Your task to perform on an android device: Open location settings Image 0: 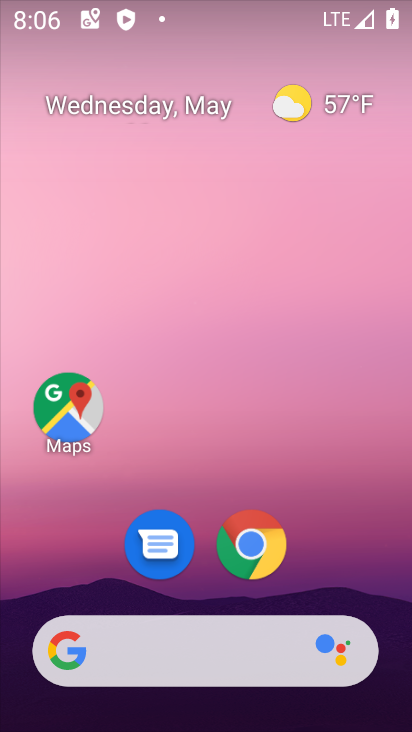
Step 0: drag from (329, 522) to (245, 0)
Your task to perform on an android device: Open location settings Image 1: 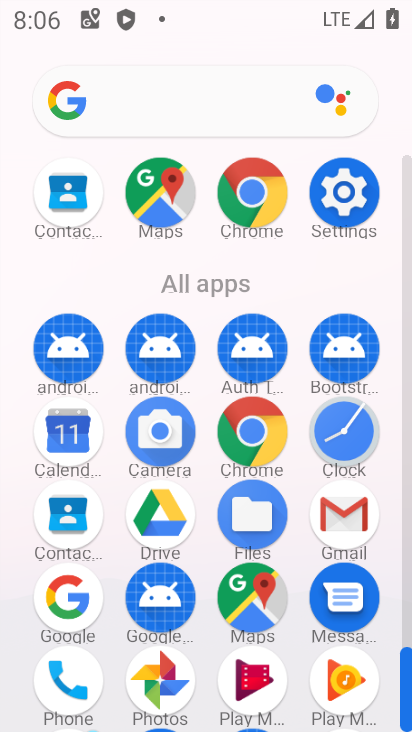
Step 1: drag from (9, 516) to (9, 172)
Your task to perform on an android device: Open location settings Image 2: 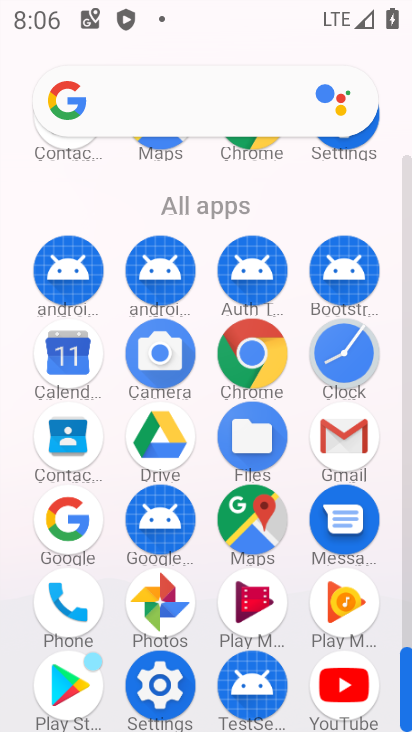
Step 2: click (161, 685)
Your task to perform on an android device: Open location settings Image 3: 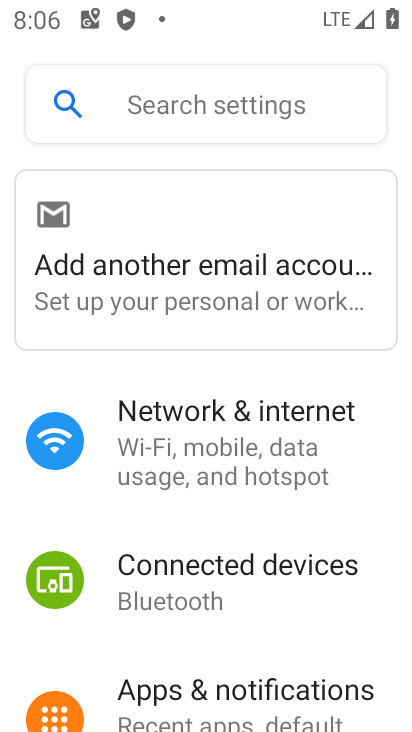
Step 3: drag from (298, 605) to (319, 102)
Your task to perform on an android device: Open location settings Image 4: 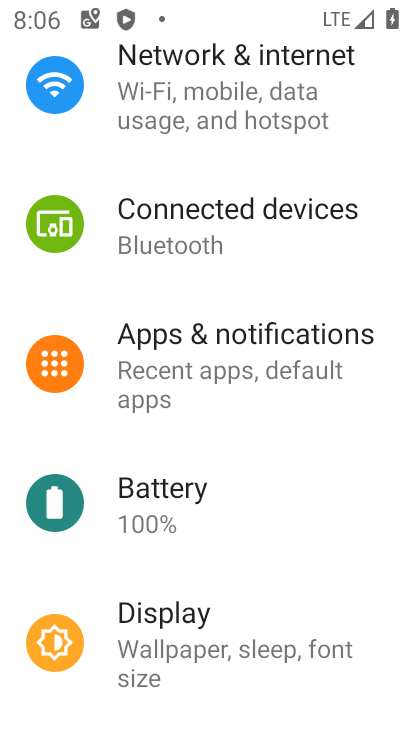
Step 4: drag from (267, 566) to (275, 94)
Your task to perform on an android device: Open location settings Image 5: 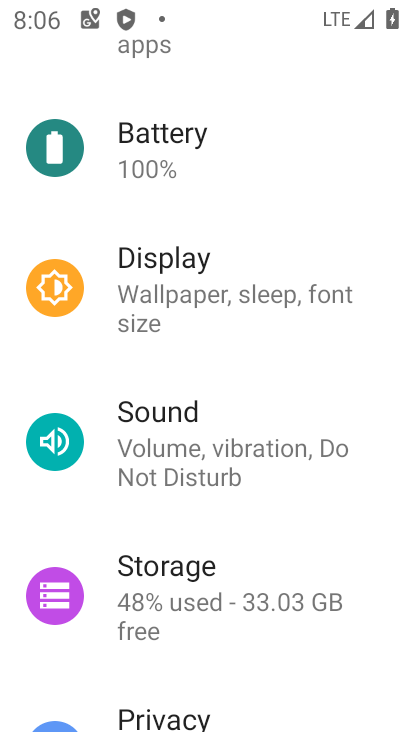
Step 5: drag from (238, 594) to (246, 98)
Your task to perform on an android device: Open location settings Image 6: 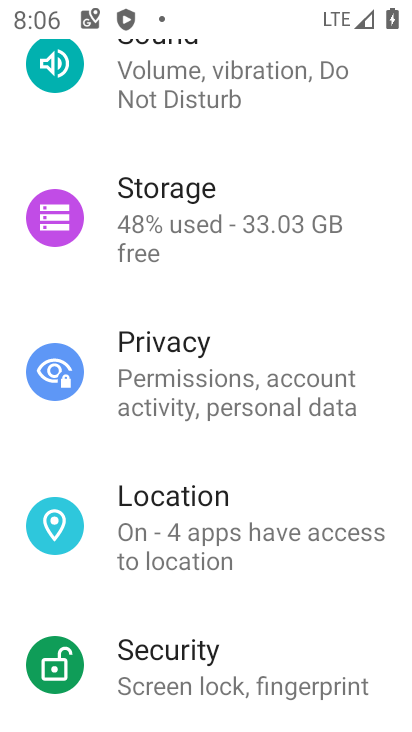
Step 6: click (208, 503)
Your task to perform on an android device: Open location settings Image 7: 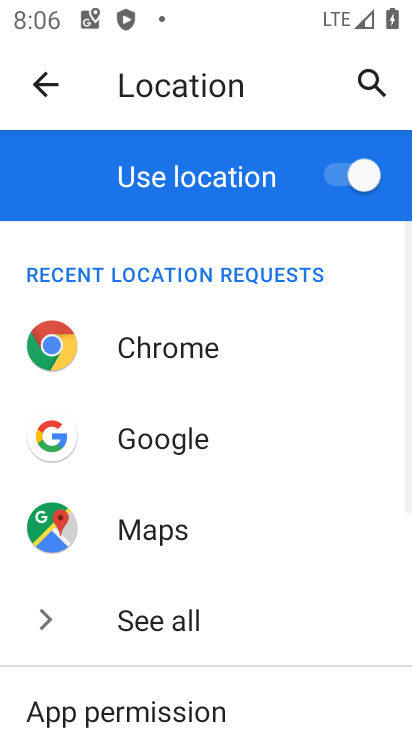
Step 7: drag from (235, 546) to (240, 162)
Your task to perform on an android device: Open location settings Image 8: 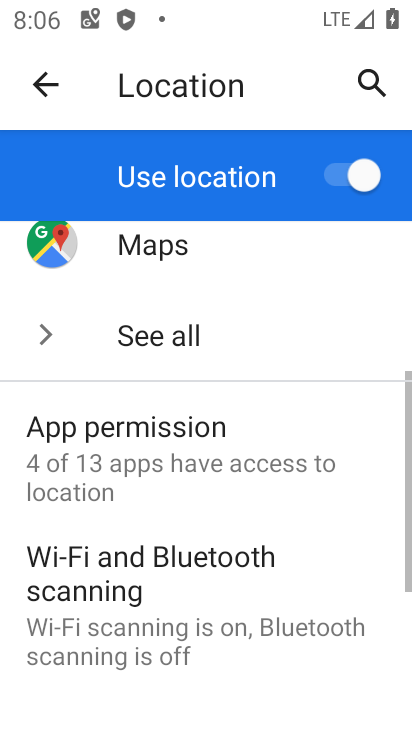
Step 8: drag from (218, 626) to (246, 198)
Your task to perform on an android device: Open location settings Image 9: 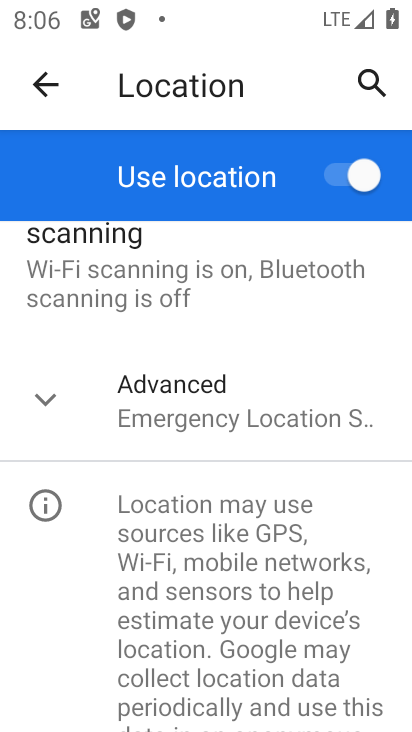
Step 9: click (33, 399)
Your task to perform on an android device: Open location settings Image 10: 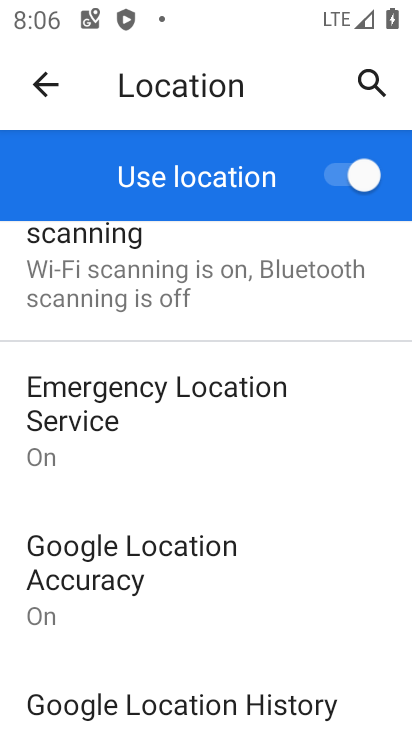
Step 10: task complete